Your task to perform on an android device: Open accessibility settings Image 0: 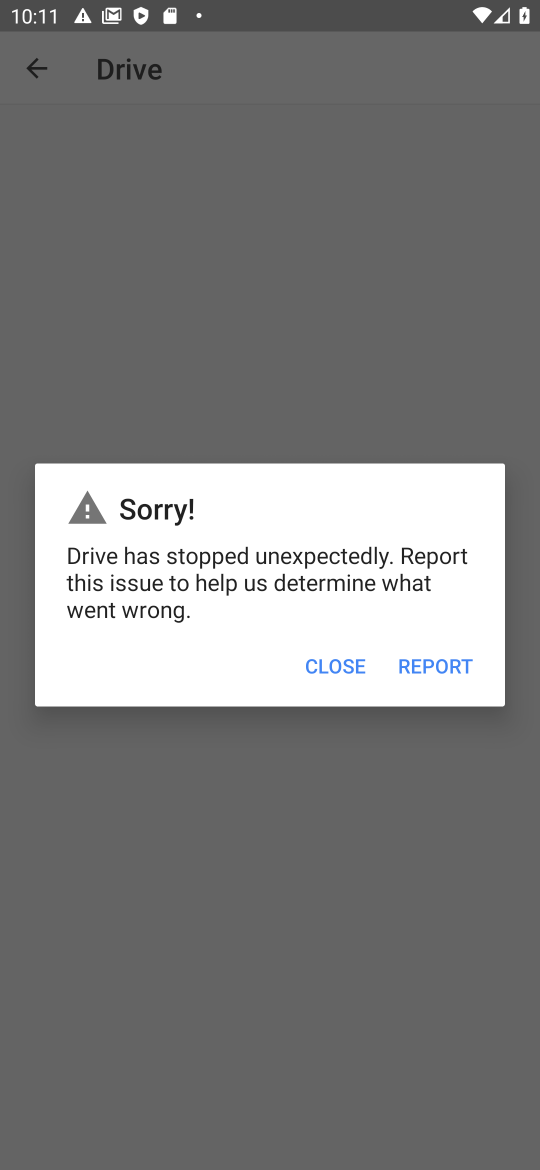
Step 0: press home button
Your task to perform on an android device: Open accessibility settings Image 1: 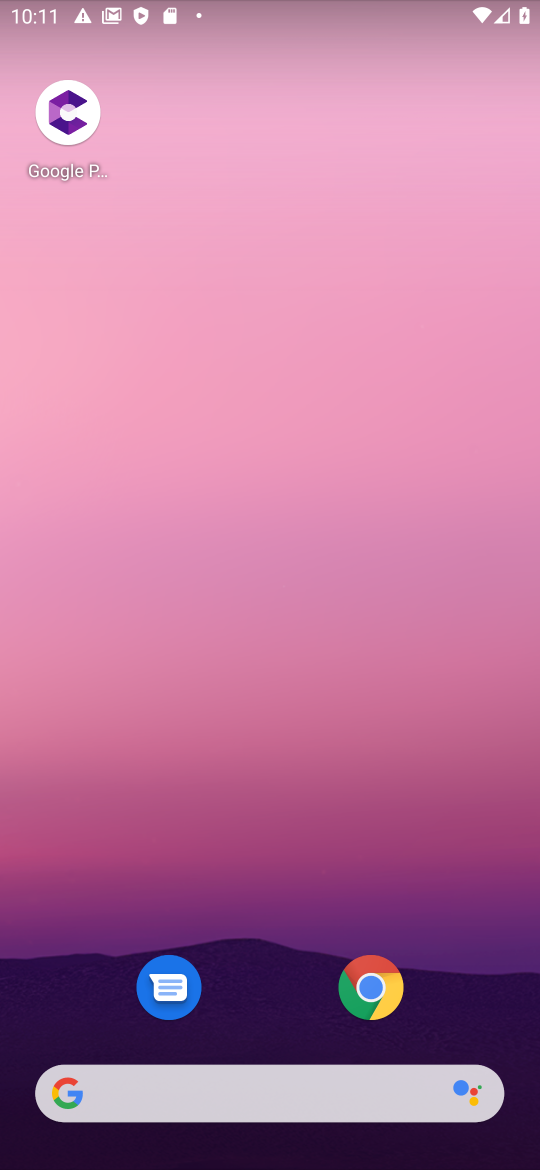
Step 1: drag from (18, 1100) to (237, 204)
Your task to perform on an android device: Open accessibility settings Image 2: 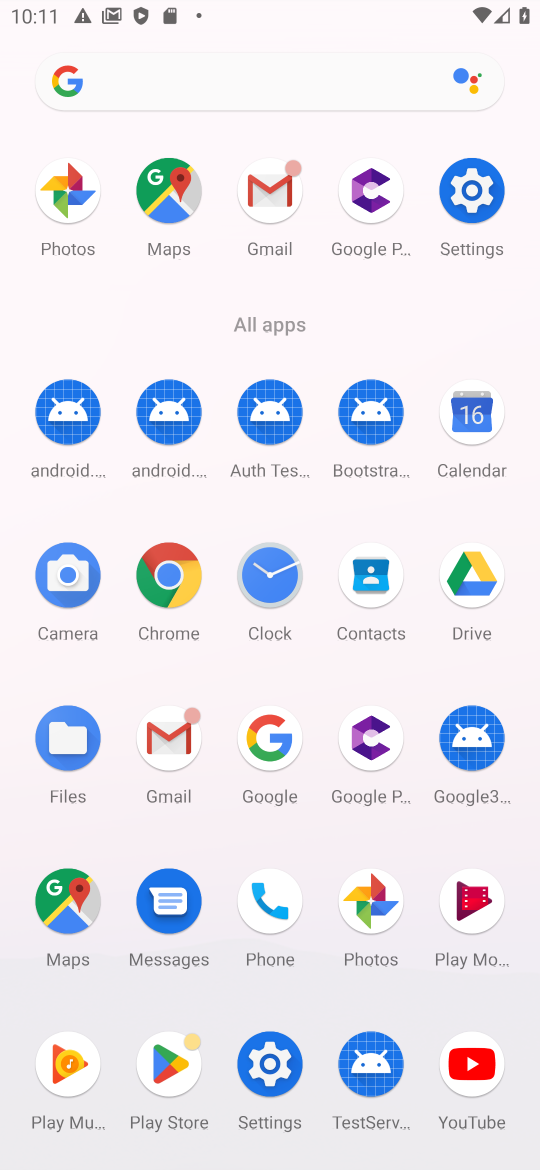
Step 2: click (277, 1073)
Your task to perform on an android device: Open accessibility settings Image 3: 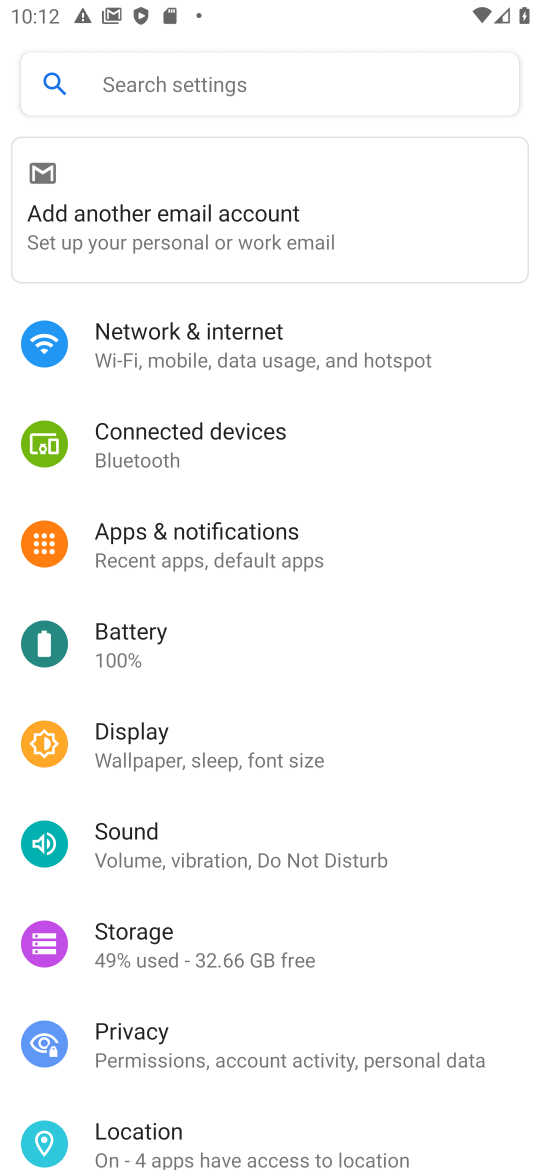
Step 3: drag from (418, 1090) to (390, 672)
Your task to perform on an android device: Open accessibility settings Image 4: 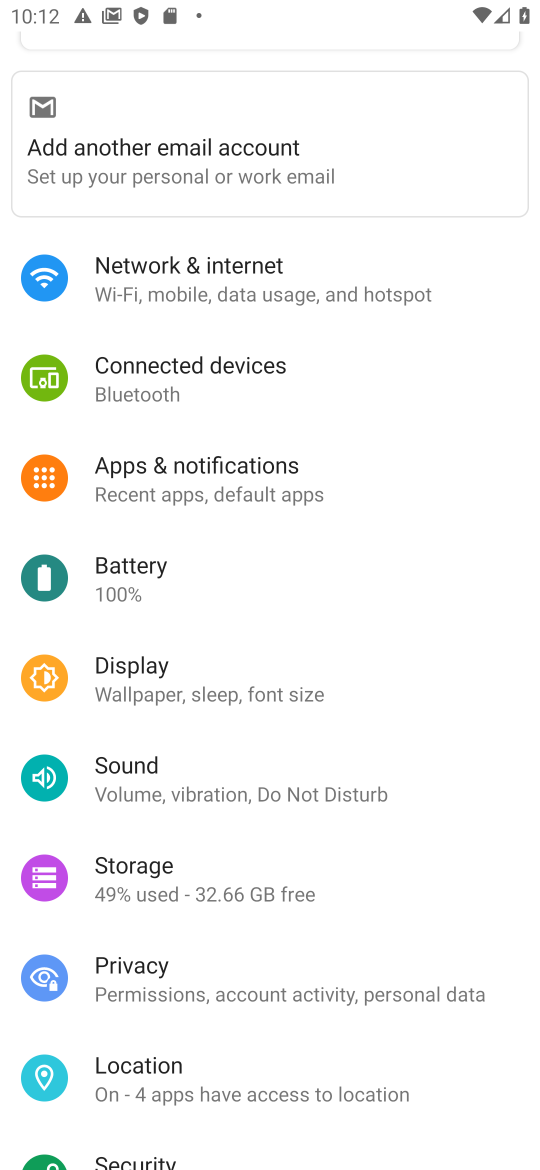
Step 4: drag from (448, 1118) to (308, 632)
Your task to perform on an android device: Open accessibility settings Image 5: 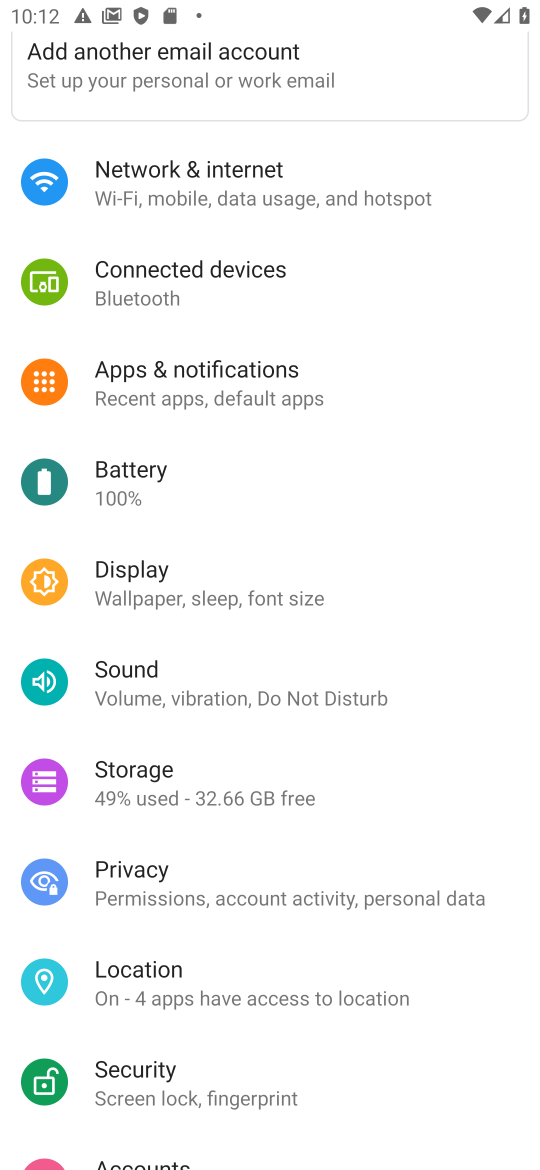
Step 5: drag from (464, 1093) to (137, 314)
Your task to perform on an android device: Open accessibility settings Image 6: 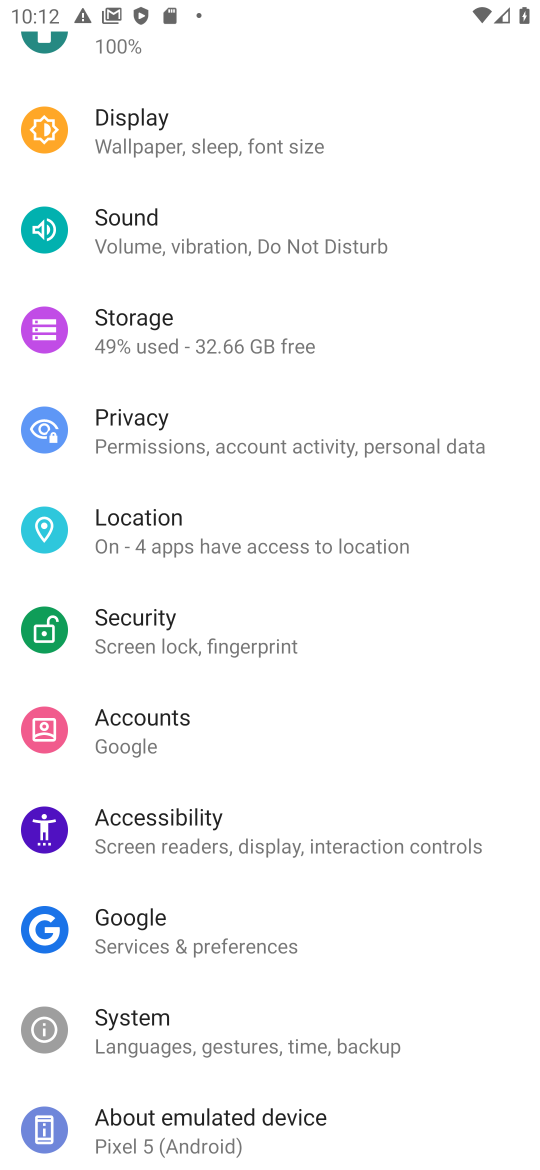
Step 6: click (171, 830)
Your task to perform on an android device: Open accessibility settings Image 7: 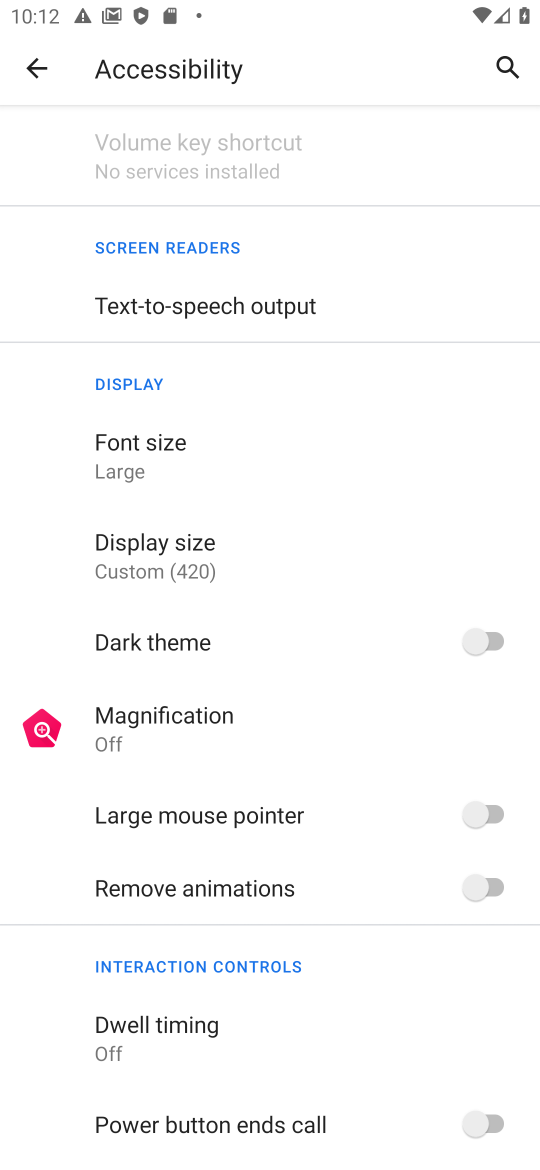
Step 7: task complete